Your task to perform on an android device: turn off location history Image 0: 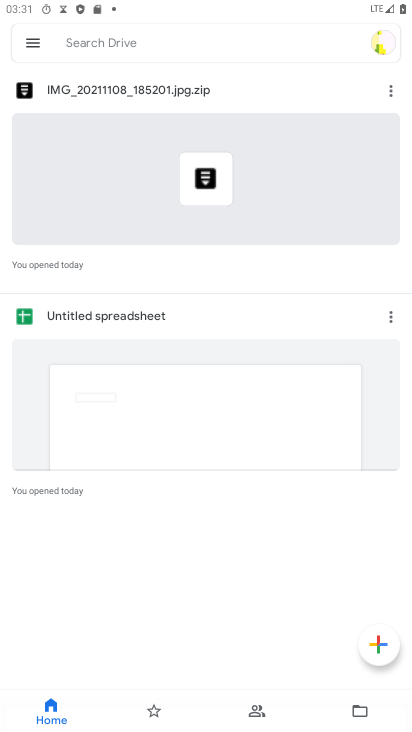
Step 0: press home button
Your task to perform on an android device: turn off location history Image 1: 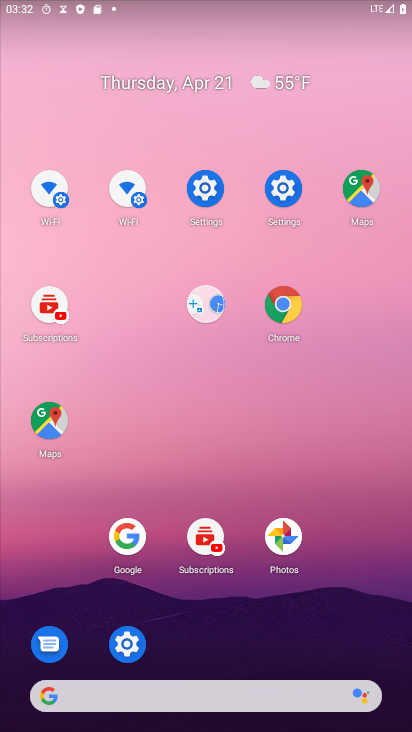
Step 1: drag from (226, 421) to (132, 84)
Your task to perform on an android device: turn off location history Image 2: 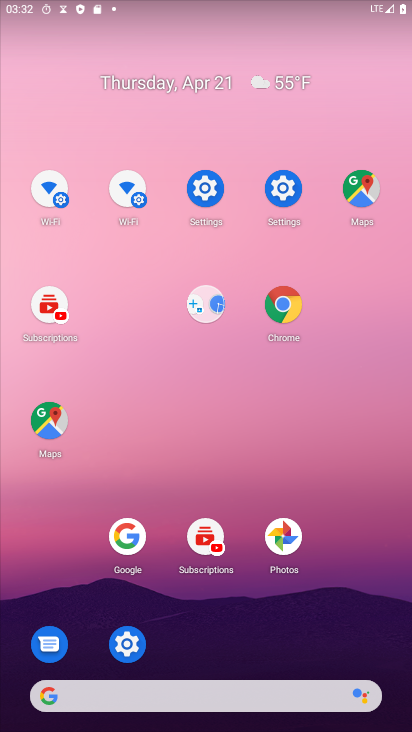
Step 2: drag from (267, 561) to (135, 122)
Your task to perform on an android device: turn off location history Image 3: 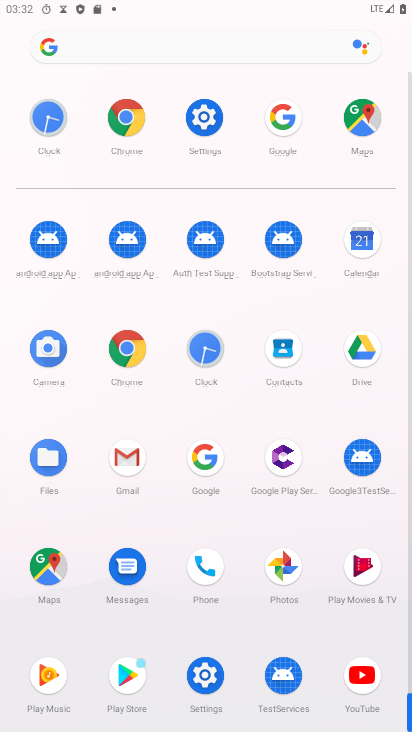
Step 3: drag from (207, 143) to (177, 35)
Your task to perform on an android device: turn off location history Image 4: 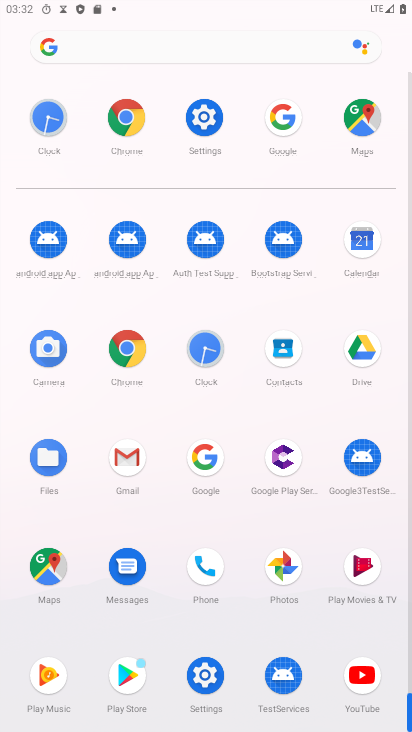
Step 4: click (57, 574)
Your task to perform on an android device: turn off location history Image 5: 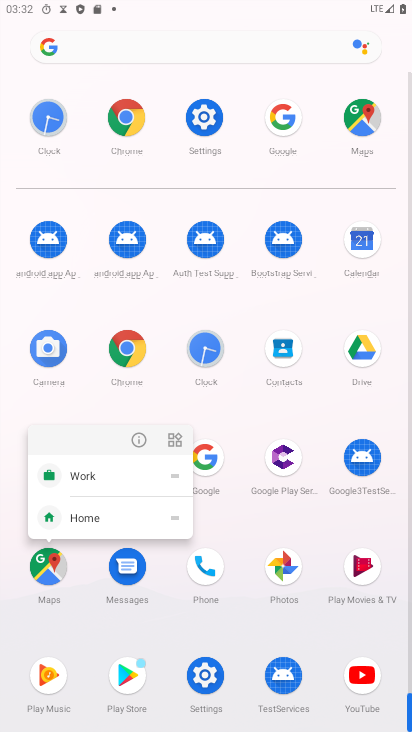
Step 5: click (48, 560)
Your task to perform on an android device: turn off location history Image 6: 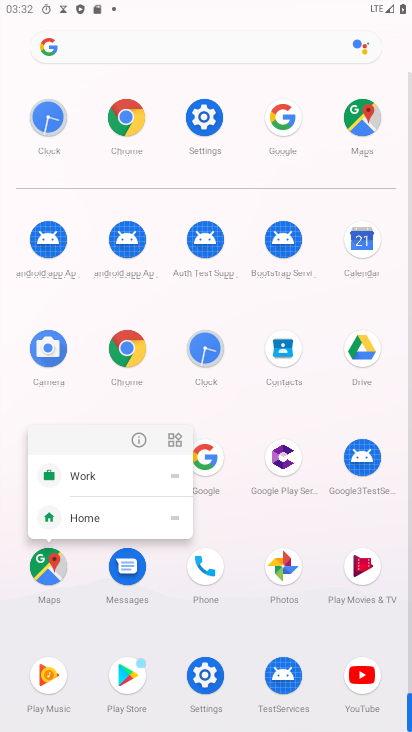
Step 6: click (42, 569)
Your task to perform on an android device: turn off location history Image 7: 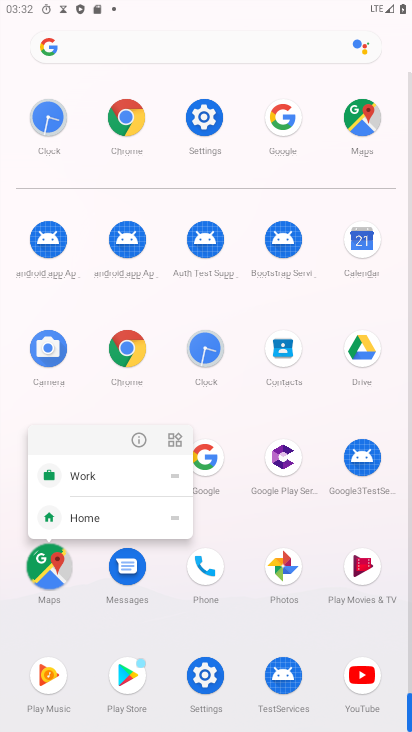
Step 7: click (42, 569)
Your task to perform on an android device: turn off location history Image 8: 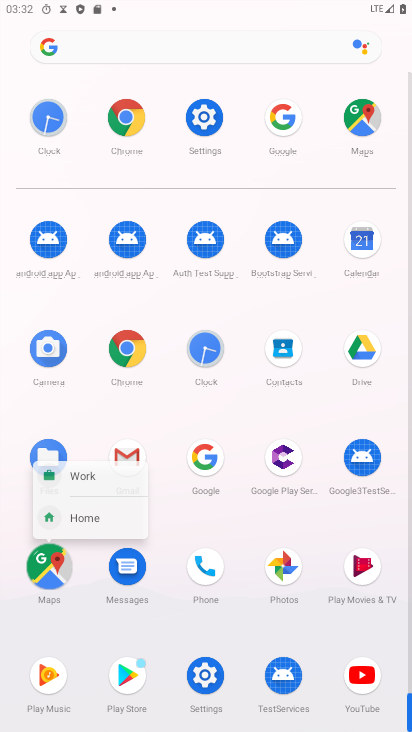
Step 8: click (42, 567)
Your task to perform on an android device: turn off location history Image 9: 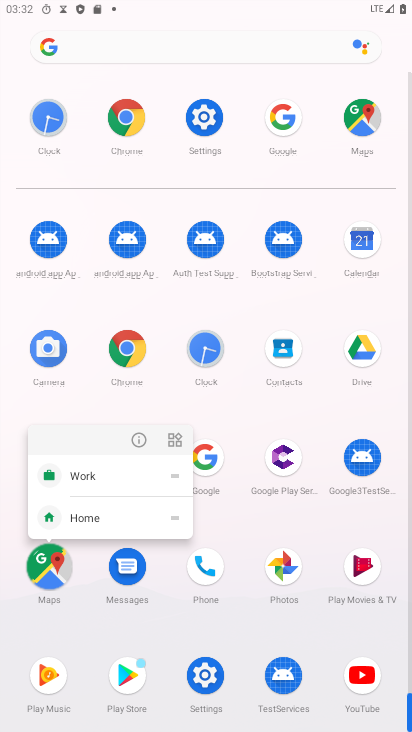
Step 9: click (45, 551)
Your task to perform on an android device: turn off location history Image 10: 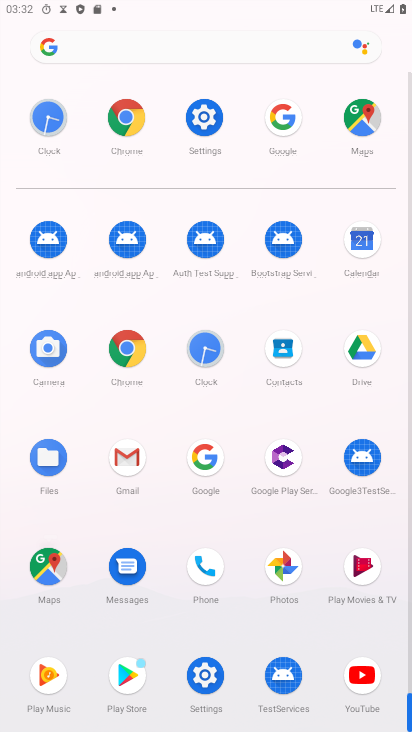
Step 10: click (45, 549)
Your task to perform on an android device: turn off location history Image 11: 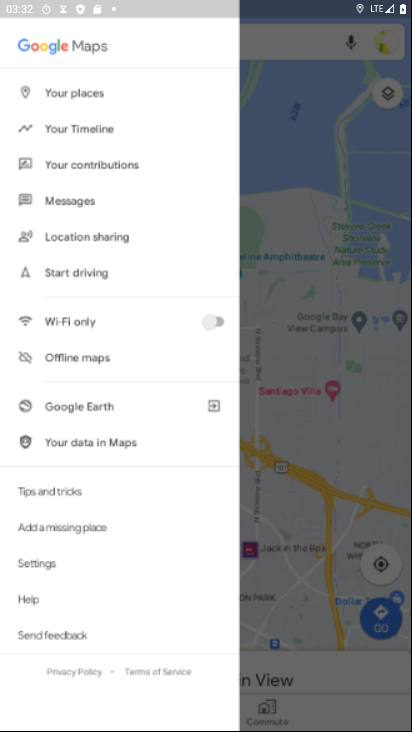
Step 11: click (38, 544)
Your task to perform on an android device: turn off location history Image 12: 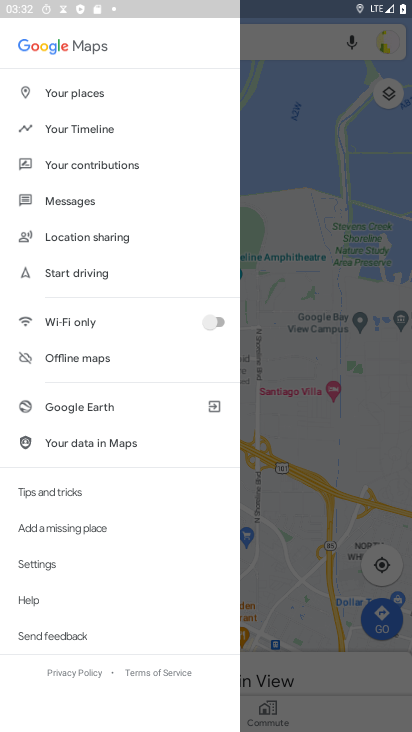
Step 12: click (98, 132)
Your task to perform on an android device: turn off location history Image 13: 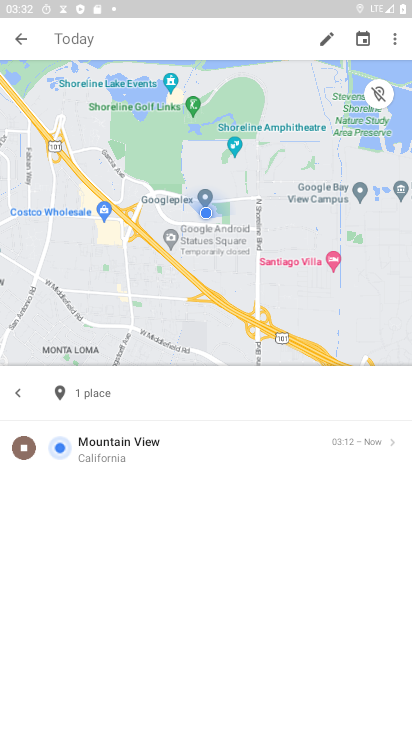
Step 13: drag from (393, 33) to (390, 113)
Your task to perform on an android device: turn off location history Image 14: 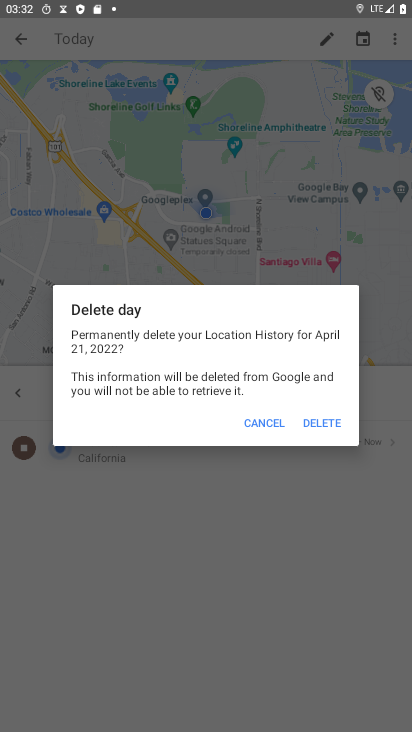
Step 14: click (262, 417)
Your task to perform on an android device: turn off location history Image 15: 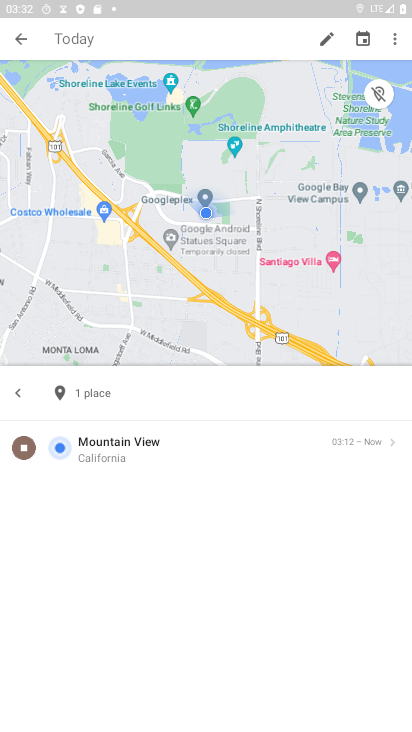
Step 15: drag from (392, 32) to (378, 267)
Your task to perform on an android device: turn off location history Image 16: 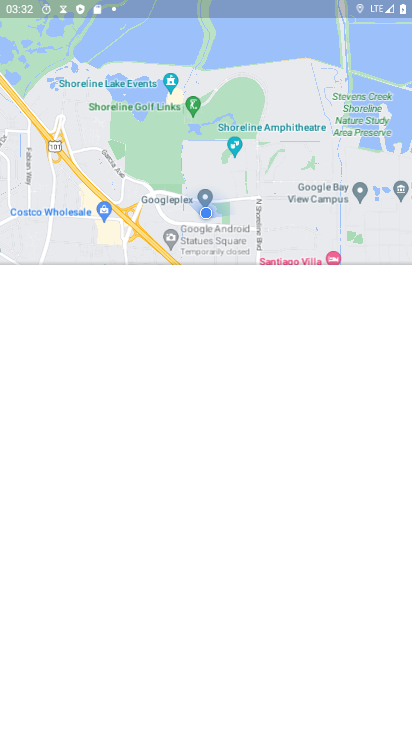
Step 16: click (352, 246)
Your task to perform on an android device: turn off location history Image 17: 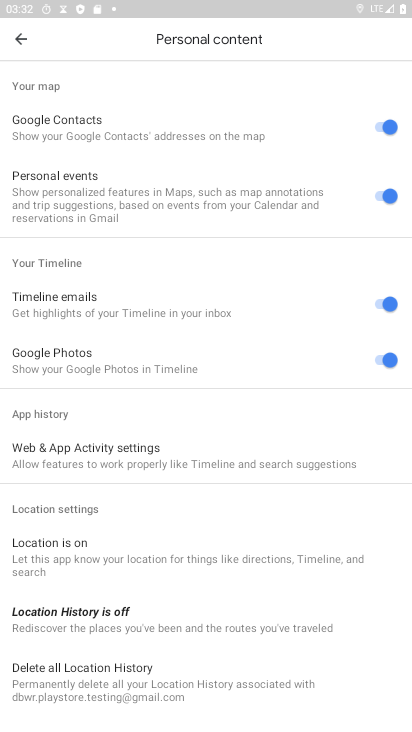
Step 17: click (96, 620)
Your task to perform on an android device: turn off location history Image 18: 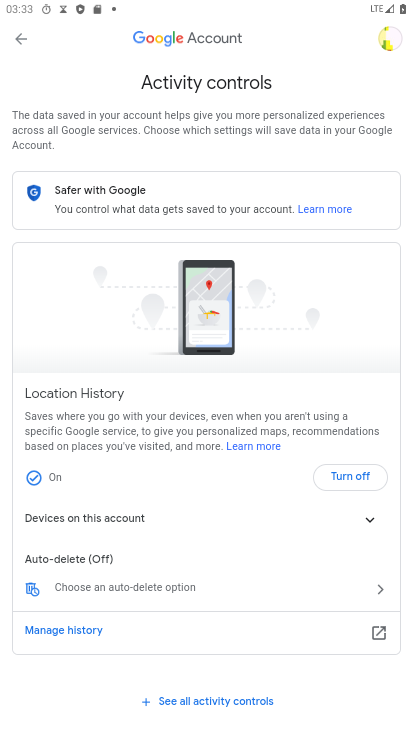
Step 18: click (354, 478)
Your task to perform on an android device: turn off location history Image 19: 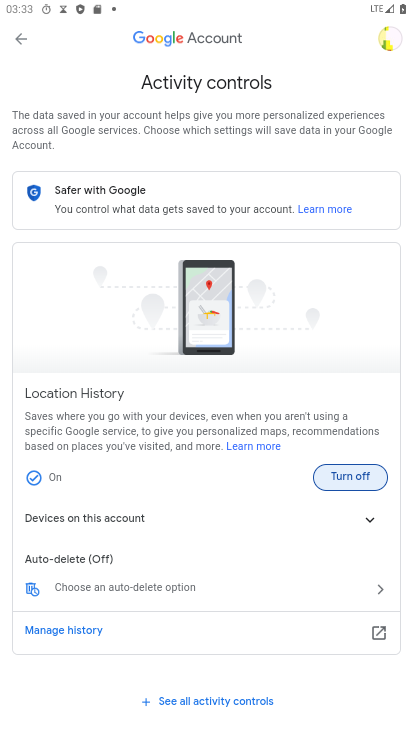
Step 19: task complete